Your task to perform on an android device: search for starred emails in the gmail app Image 0: 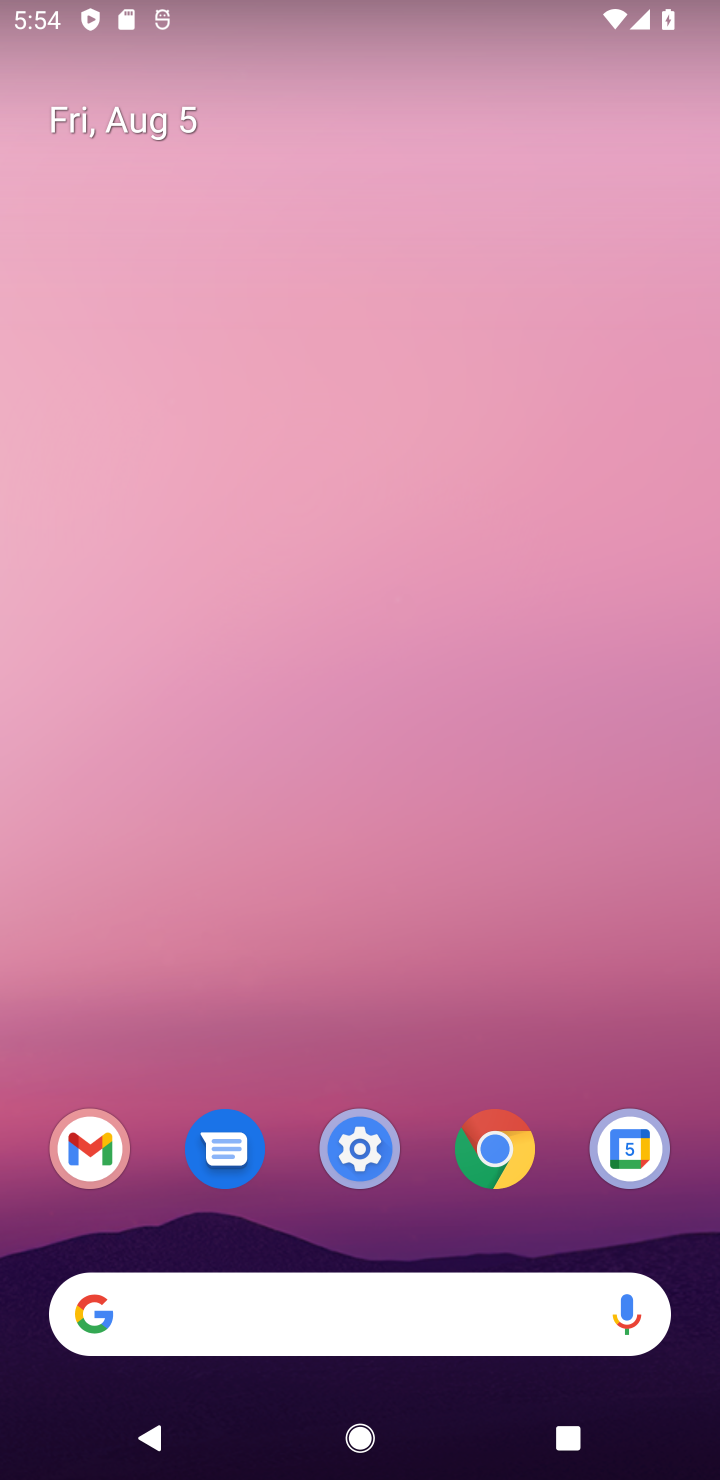
Step 0: drag from (166, 1052) to (180, 242)
Your task to perform on an android device: search for starred emails in the gmail app Image 1: 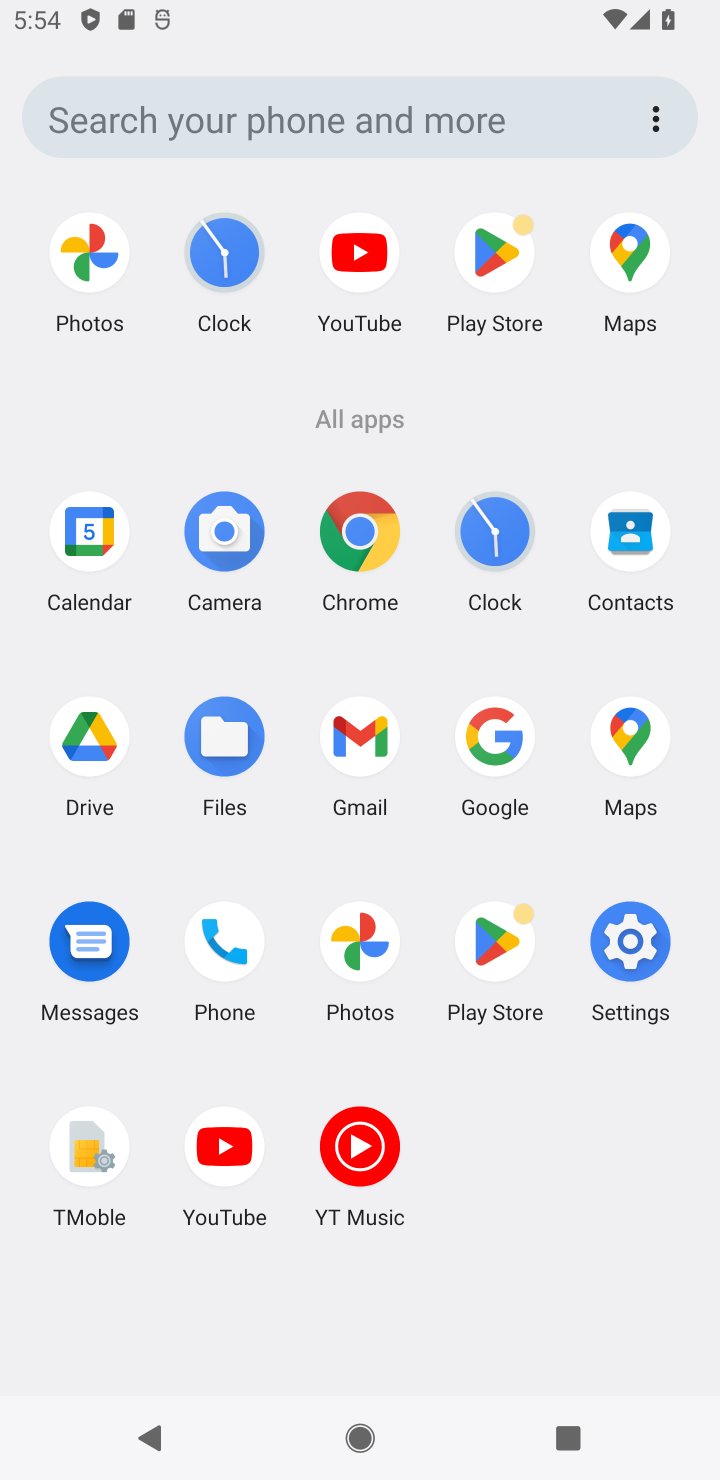
Step 1: click (478, 933)
Your task to perform on an android device: search for starred emails in the gmail app Image 2: 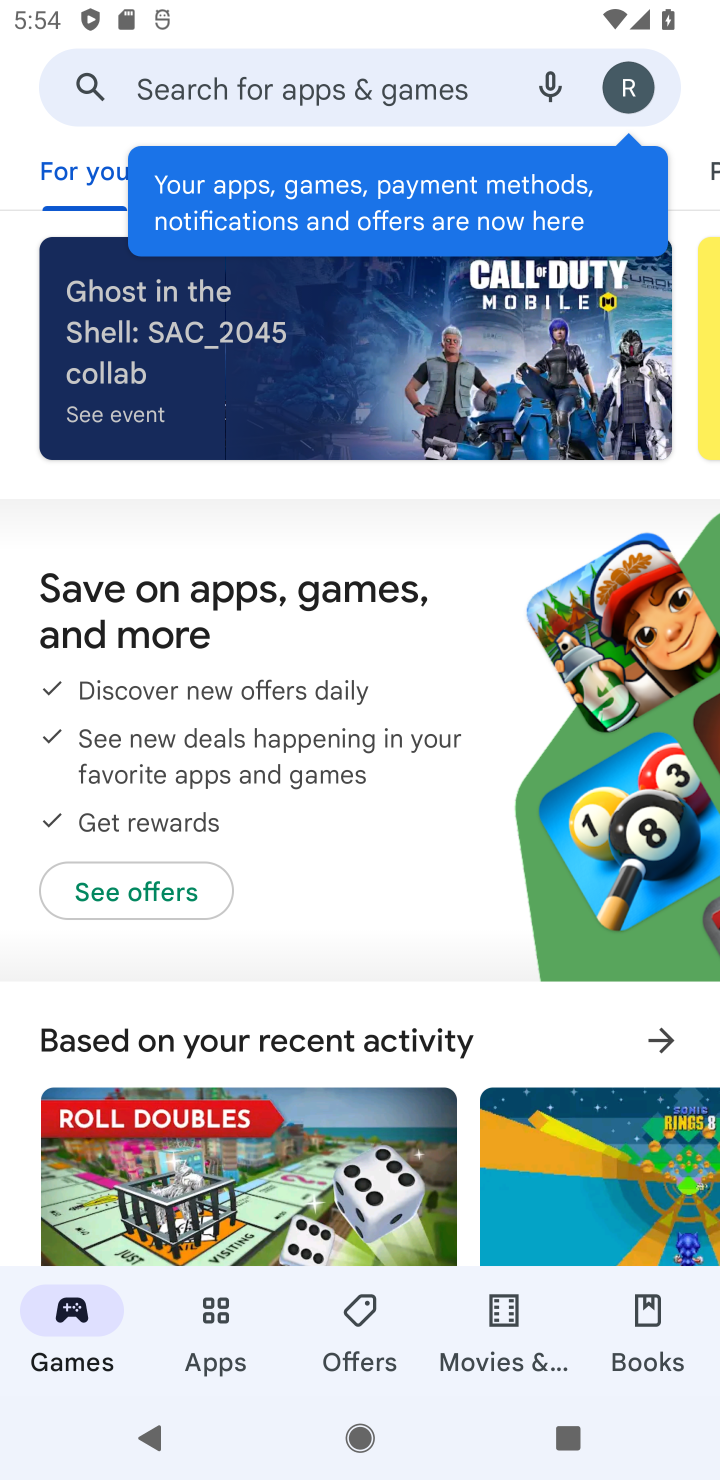
Step 2: press home button
Your task to perform on an android device: search for starred emails in the gmail app Image 3: 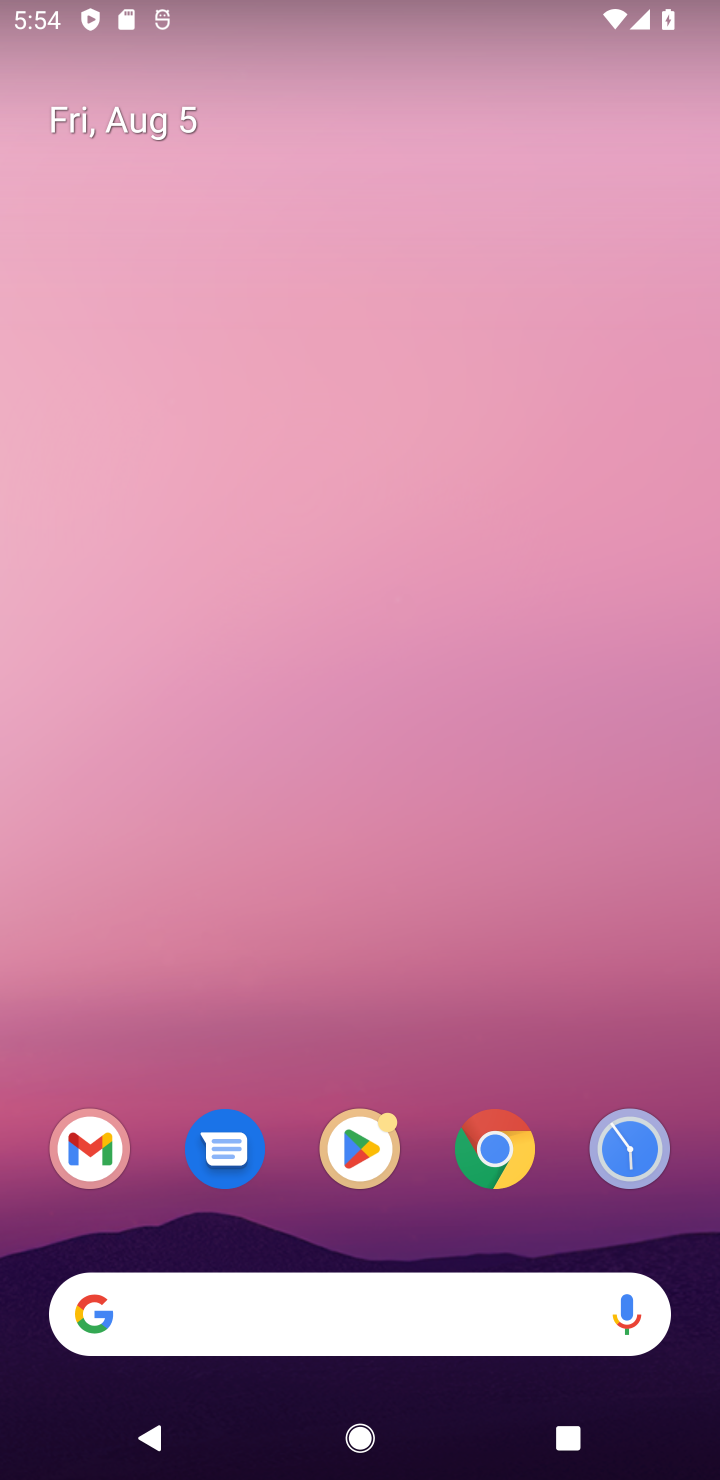
Step 3: click (87, 1150)
Your task to perform on an android device: search for starred emails in the gmail app Image 4: 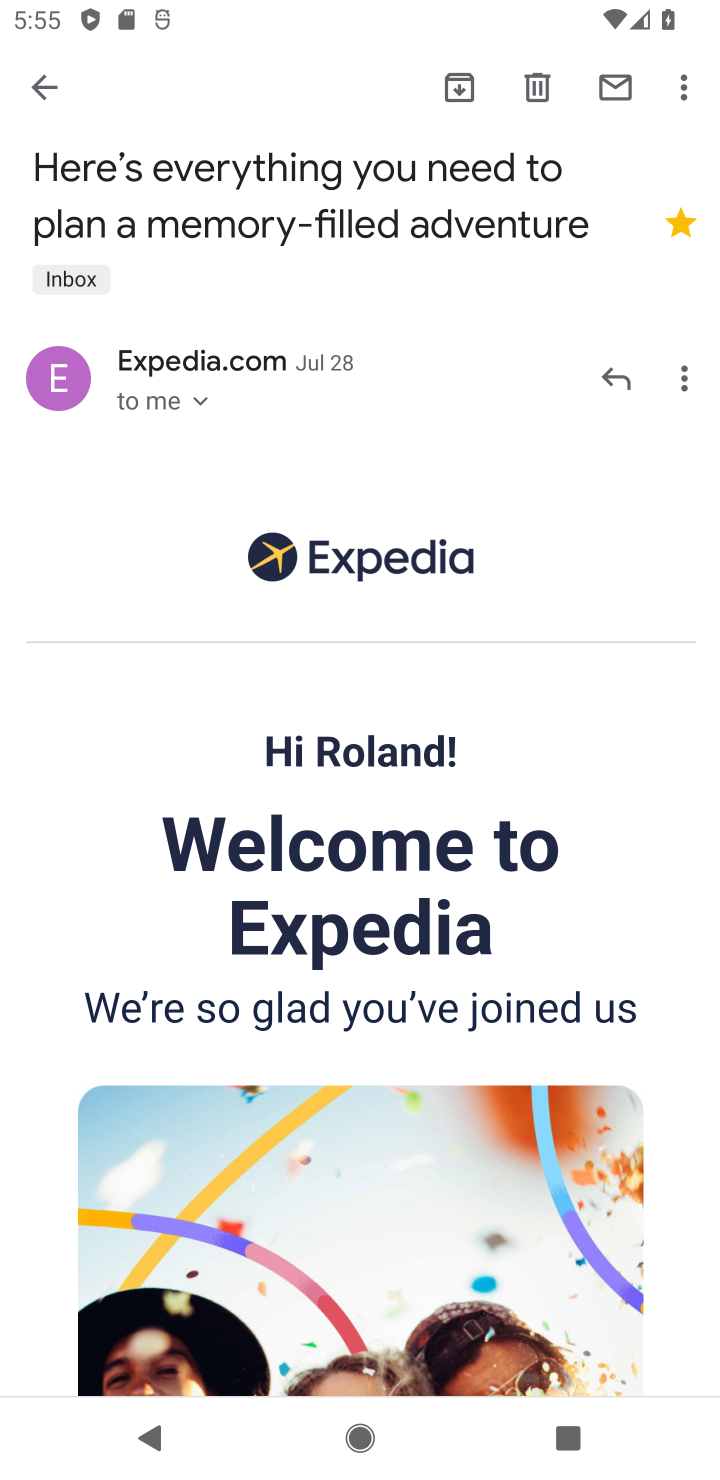
Step 4: click (48, 83)
Your task to perform on an android device: search for starred emails in the gmail app Image 5: 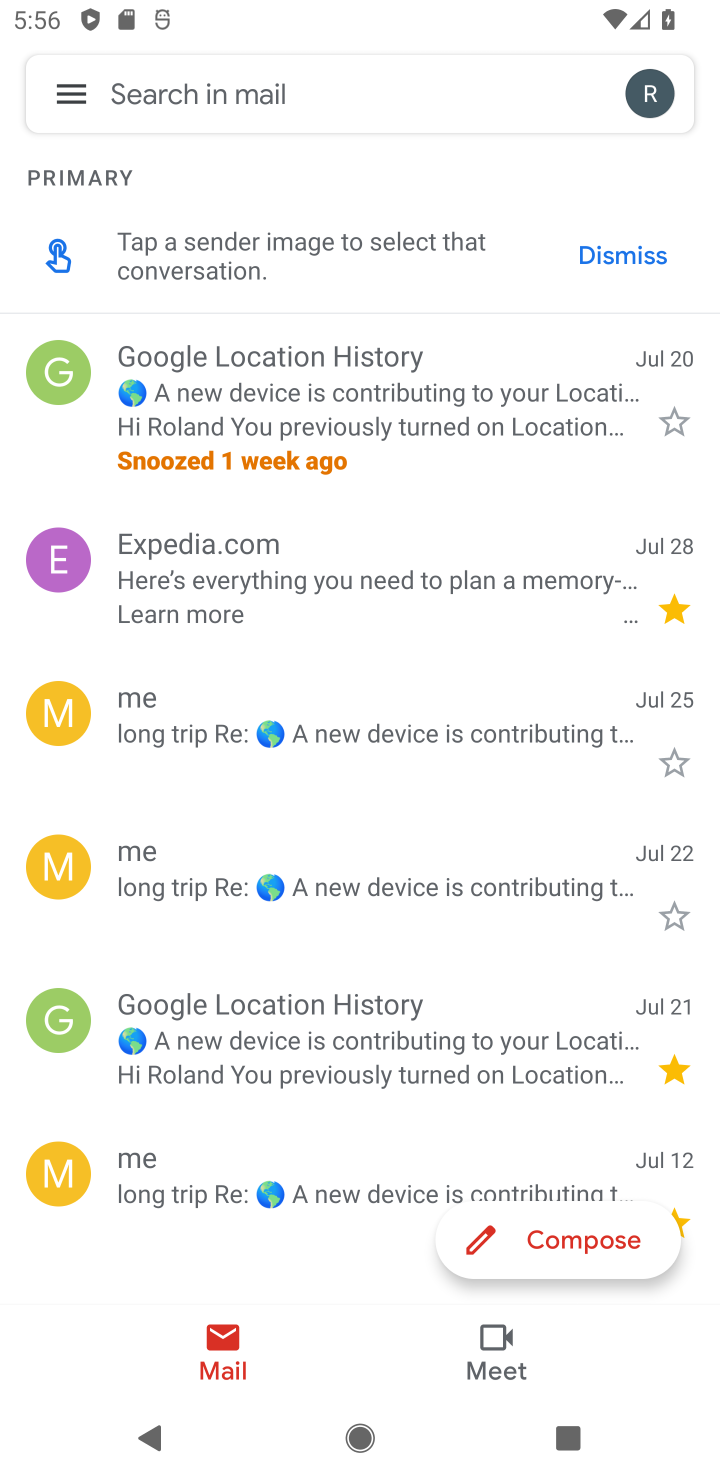
Step 5: task complete